Your task to perform on an android device: change the clock style Image 0: 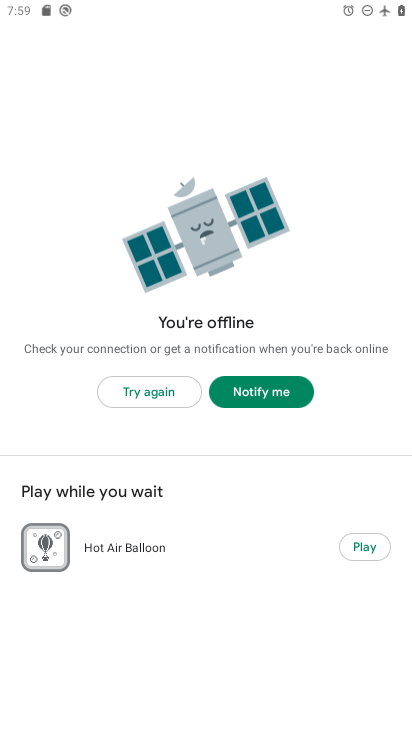
Step 0: press home button
Your task to perform on an android device: change the clock style Image 1: 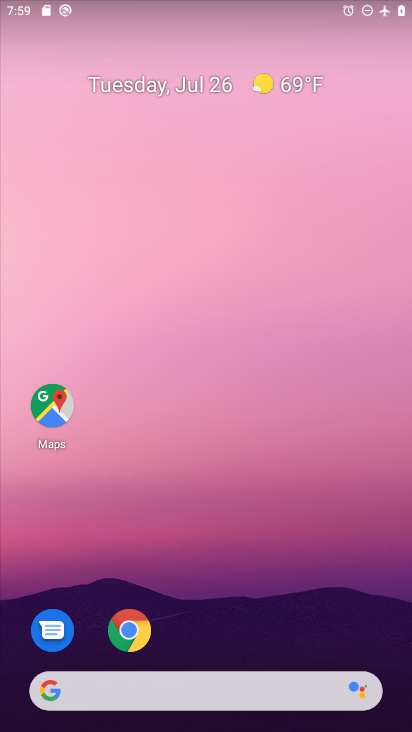
Step 1: drag from (269, 626) to (308, 111)
Your task to perform on an android device: change the clock style Image 2: 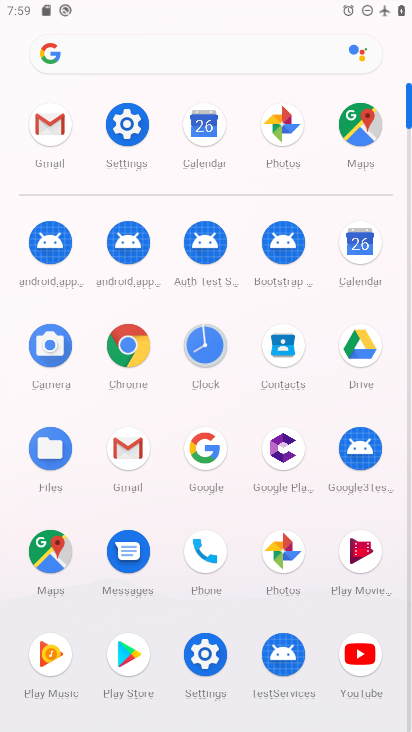
Step 2: click (222, 353)
Your task to perform on an android device: change the clock style Image 3: 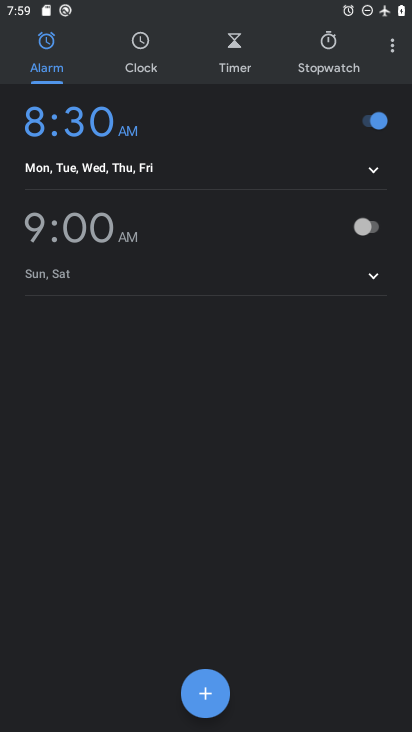
Step 3: click (390, 47)
Your task to perform on an android device: change the clock style Image 4: 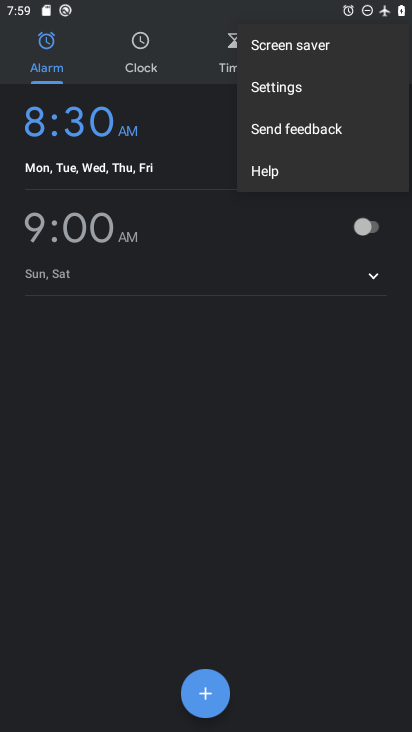
Step 4: click (302, 89)
Your task to perform on an android device: change the clock style Image 5: 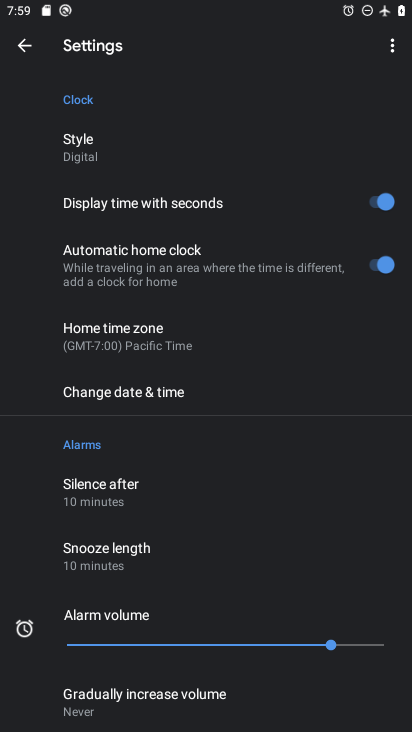
Step 5: click (290, 157)
Your task to perform on an android device: change the clock style Image 6: 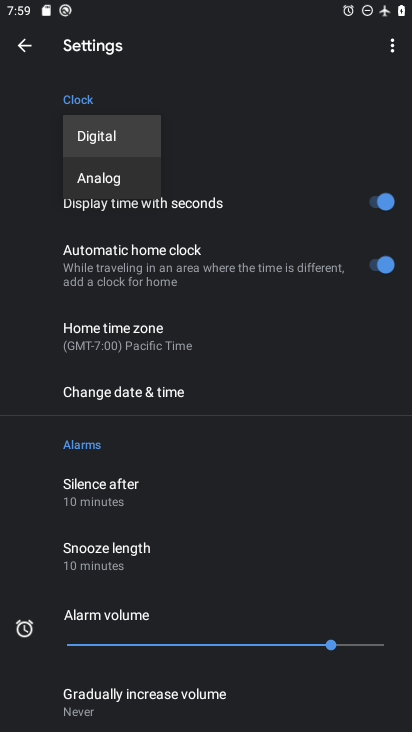
Step 6: click (104, 185)
Your task to perform on an android device: change the clock style Image 7: 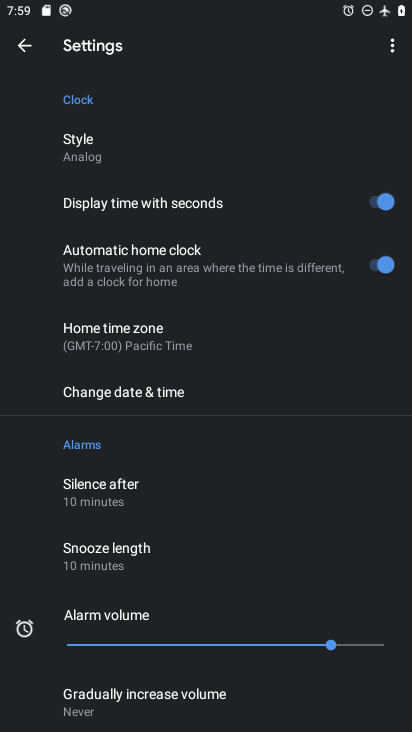
Step 7: task complete